Your task to perform on an android device: turn off javascript in the chrome app Image 0: 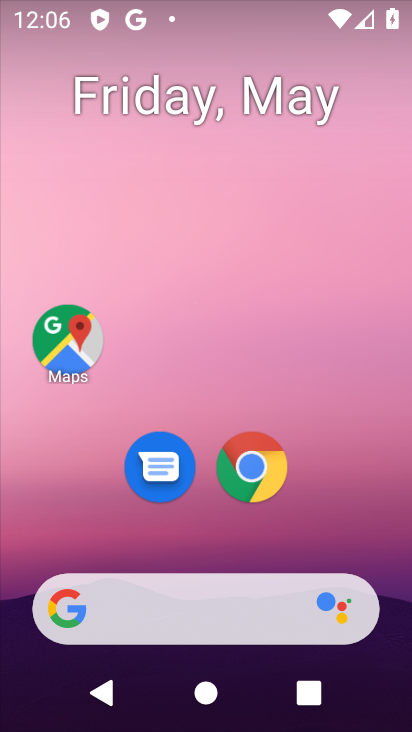
Step 0: click (252, 469)
Your task to perform on an android device: turn off javascript in the chrome app Image 1: 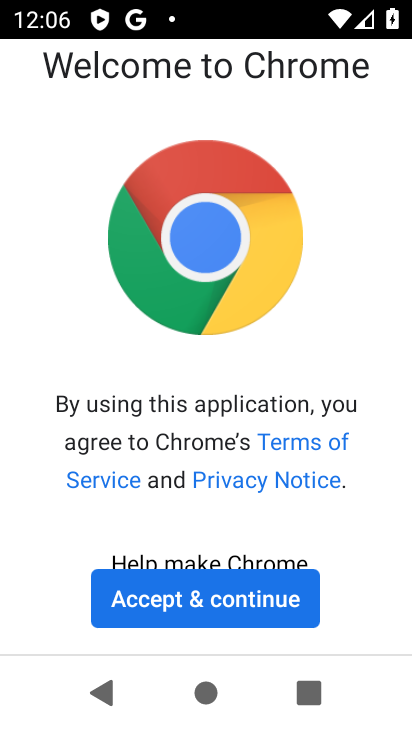
Step 1: click (198, 595)
Your task to perform on an android device: turn off javascript in the chrome app Image 2: 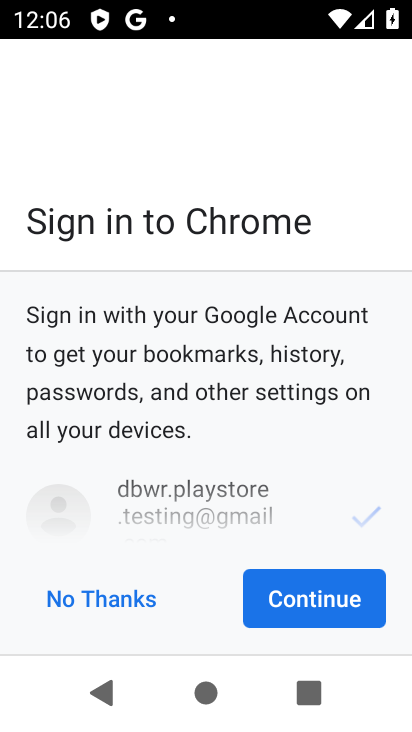
Step 2: click (338, 604)
Your task to perform on an android device: turn off javascript in the chrome app Image 3: 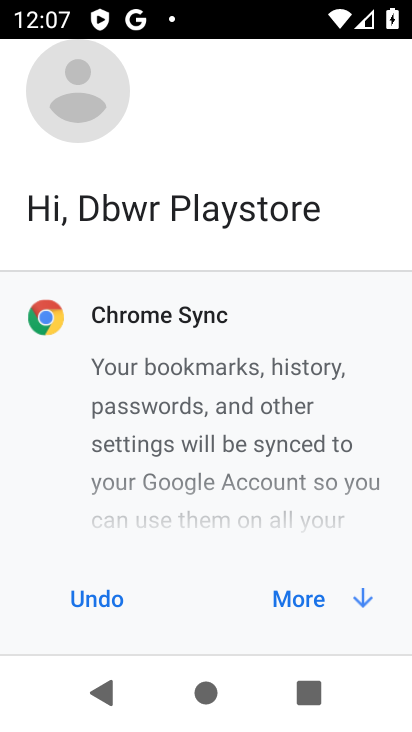
Step 3: click (329, 593)
Your task to perform on an android device: turn off javascript in the chrome app Image 4: 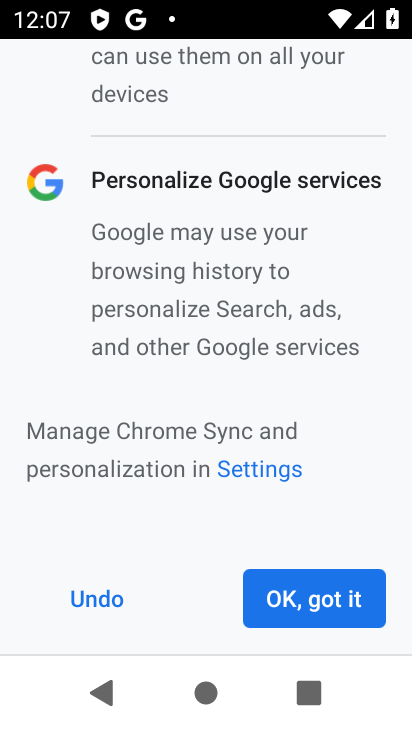
Step 4: click (311, 592)
Your task to perform on an android device: turn off javascript in the chrome app Image 5: 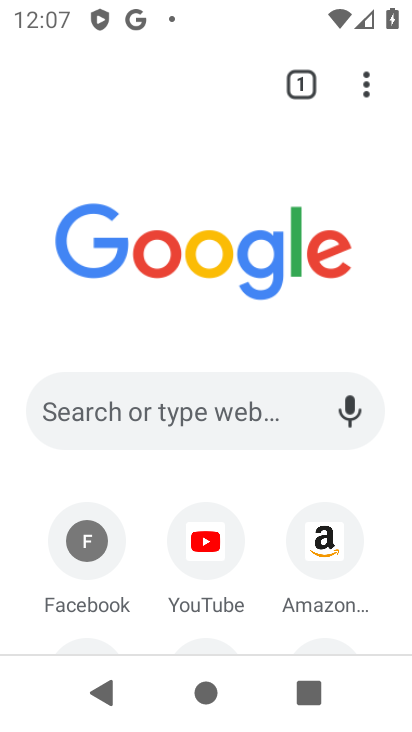
Step 5: click (366, 84)
Your task to perform on an android device: turn off javascript in the chrome app Image 6: 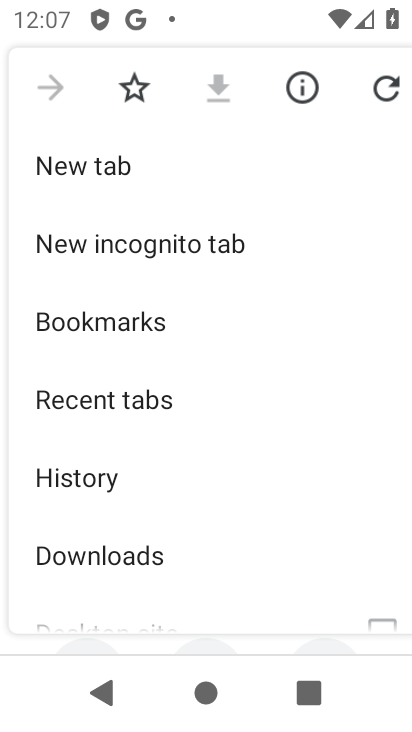
Step 6: drag from (98, 511) to (148, 424)
Your task to perform on an android device: turn off javascript in the chrome app Image 7: 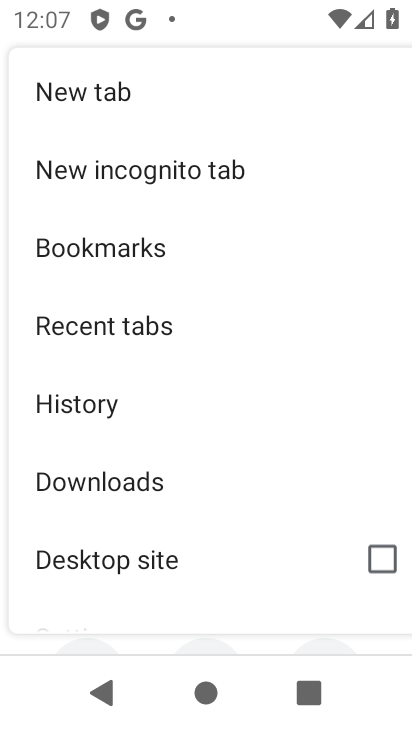
Step 7: drag from (138, 428) to (203, 321)
Your task to perform on an android device: turn off javascript in the chrome app Image 8: 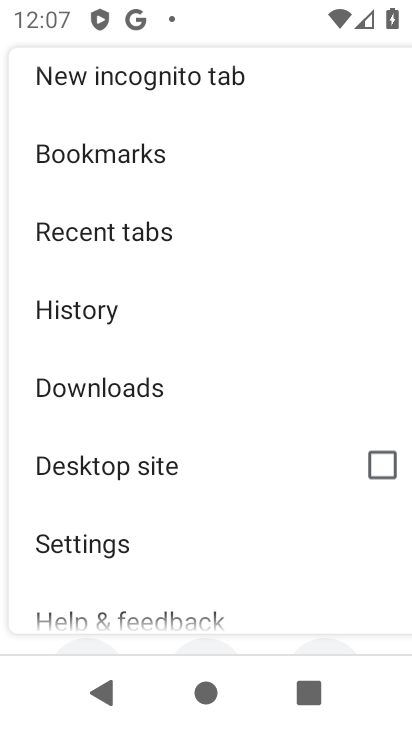
Step 8: drag from (161, 442) to (214, 368)
Your task to perform on an android device: turn off javascript in the chrome app Image 9: 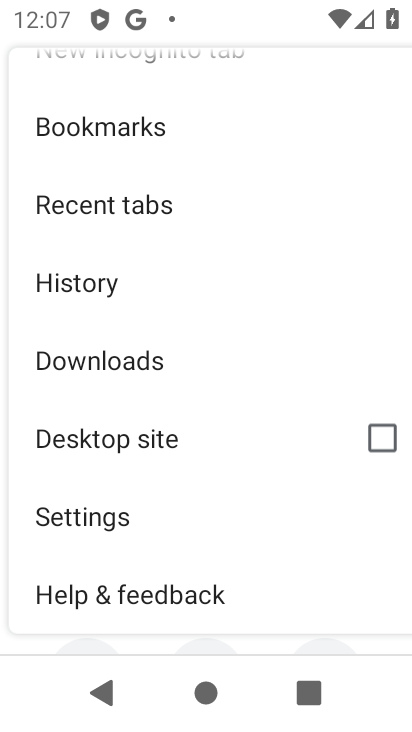
Step 9: click (107, 523)
Your task to perform on an android device: turn off javascript in the chrome app Image 10: 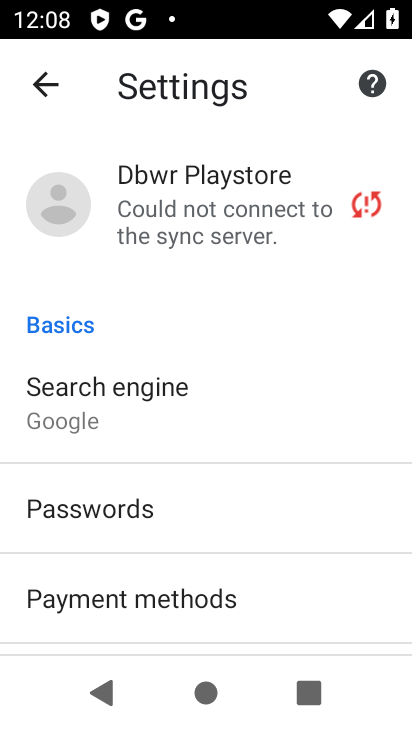
Step 10: drag from (202, 509) to (274, 332)
Your task to perform on an android device: turn off javascript in the chrome app Image 11: 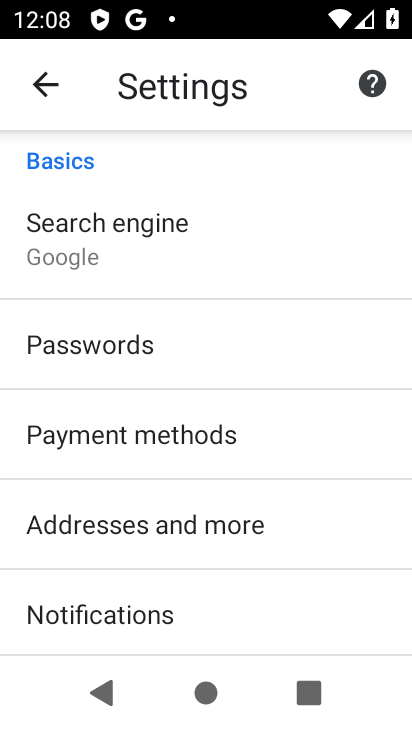
Step 11: drag from (136, 567) to (218, 394)
Your task to perform on an android device: turn off javascript in the chrome app Image 12: 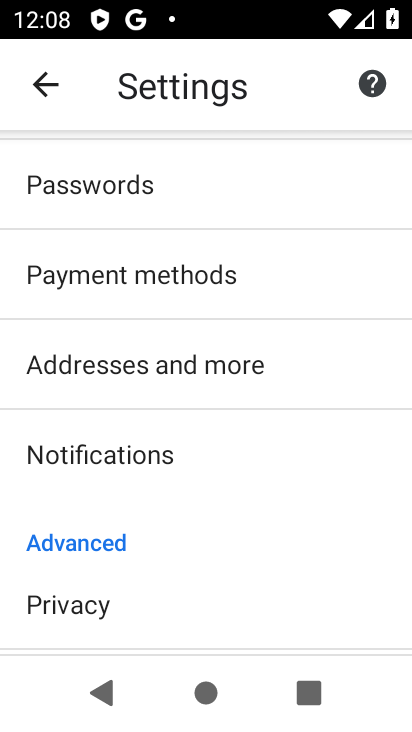
Step 12: drag from (161, 577) to (224, 427)
Your task to perform on an android device: turn off javascript in the chrome app Image 13: 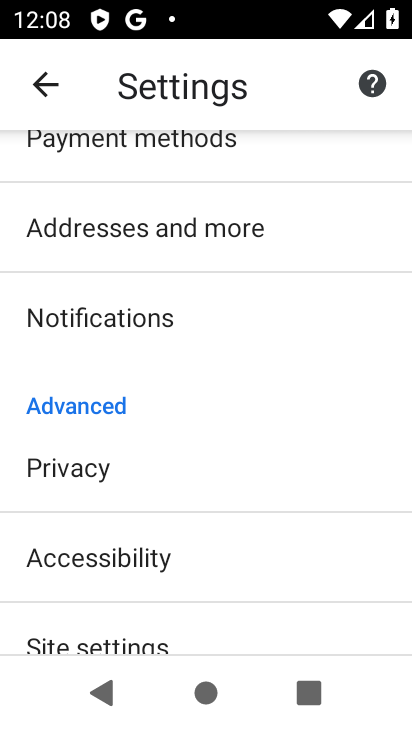
Step 13: drag from (197, 534) to (251, 408)
Your task to perform on an android device: turn off javascript in the chrome app Image 14: 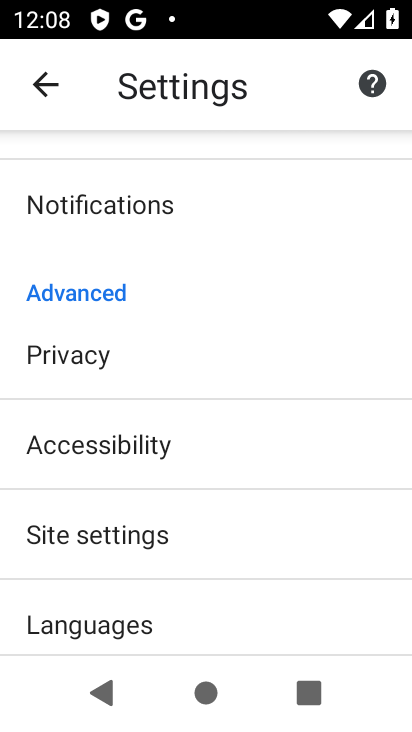
Step 14: drag from (202, 551) to (251, 421)
Your task to perform on an android device: turn off javascript in the chrome app Image 15: 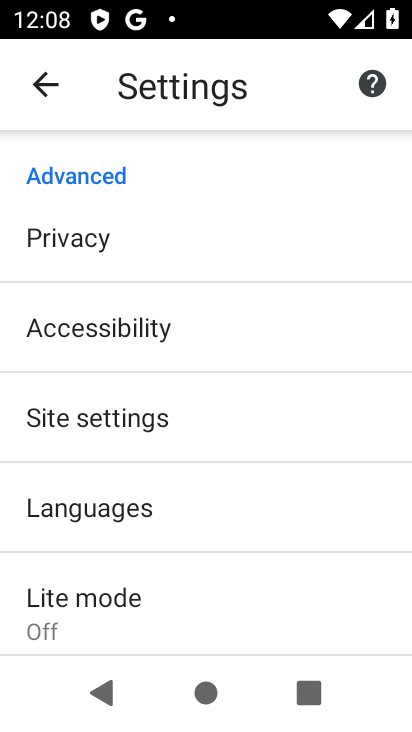
Step 15: click (123, 426)
Your task to perform on an android device: turn off javascript in the chrome app Image 16: 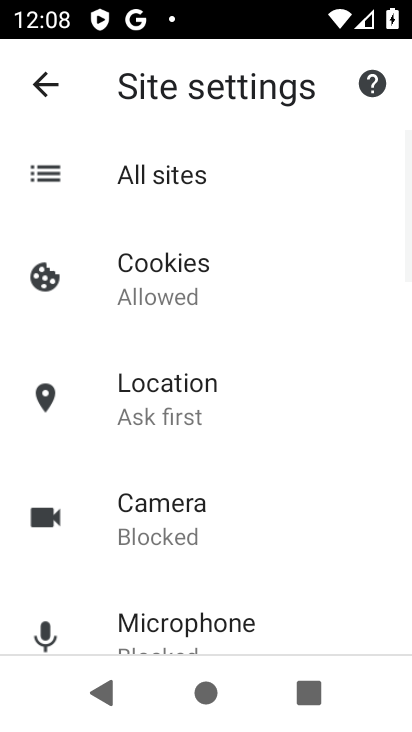
Step 16: drag from (251, 526) to (261, 399)
Your task to perform on an android device: turn off javascript in the chrome app Image 17: 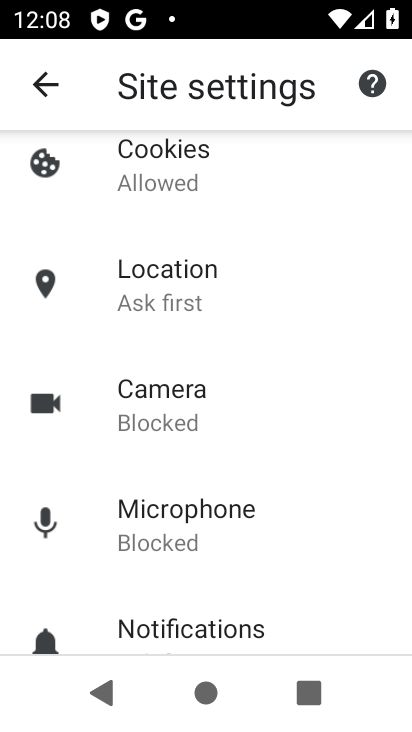
Step 17: drag from (224, 468) to (249, 352)
Your task to perform on an android device: turn off javascript in the chrome app Image 18: 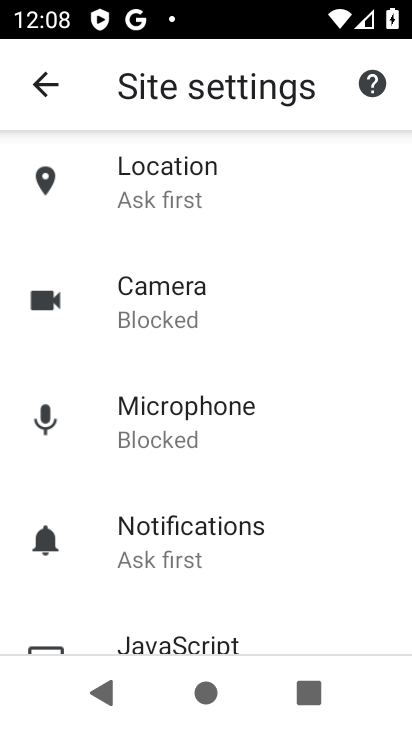
Step 18: drag from (242, 580) to (317, 453)
Your task to perform on an android device: turn off javascript in the chrome app Image 19: 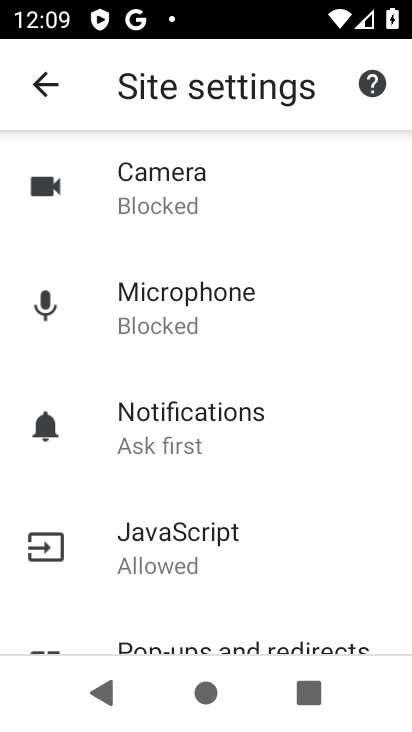
Step 19: click (193, 534)
Your task to perform on an android device: turn off javascript in the chrome app Image 20: 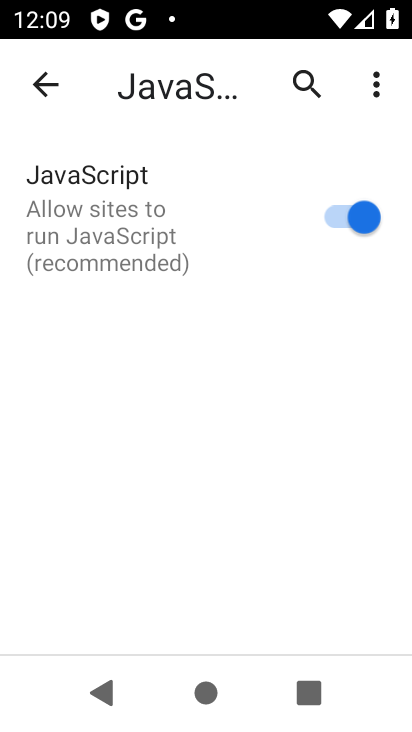
Step 20: click (359, 214)
Your task to perform on an android device: turn off javascript in the chrome app Image 21: 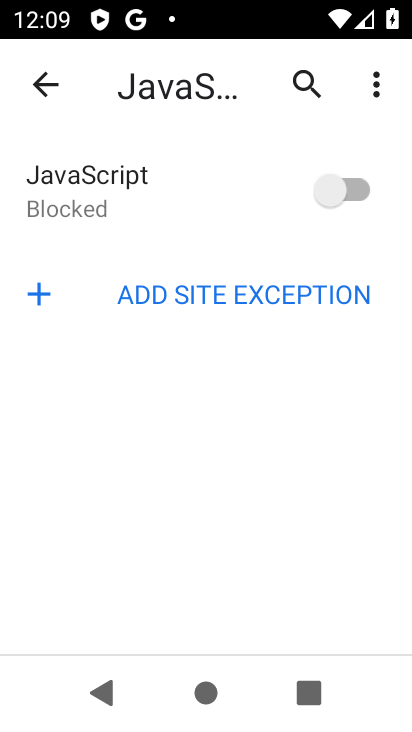
Step 21: task complete